Your task to perform on an android device: stop showing notifications on the lock screen Image 0: 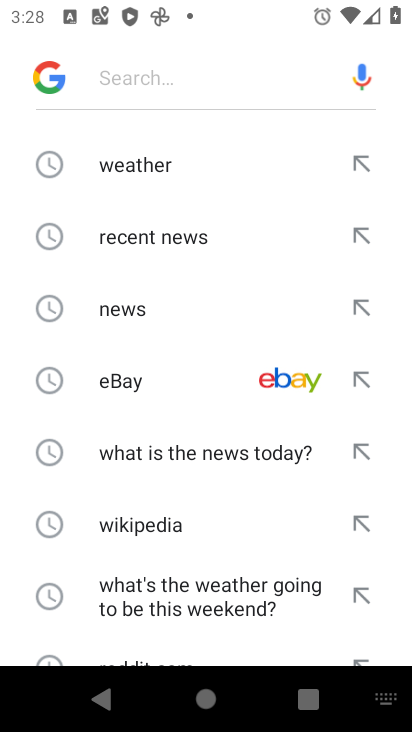
Step 0: press home button
Your task to perform on an android device: stop showing notifications on the lock screen Image 1: 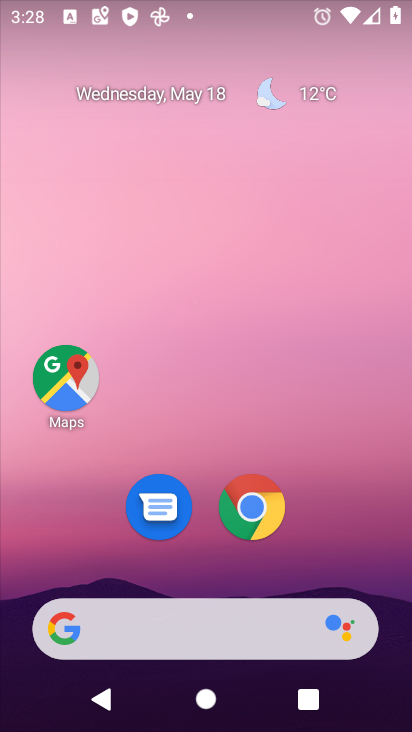
Step 1: drag from (388, 593) to (308, 107)
Your task to perform on an android device: stop showing notifications on the lock screen Image 2: 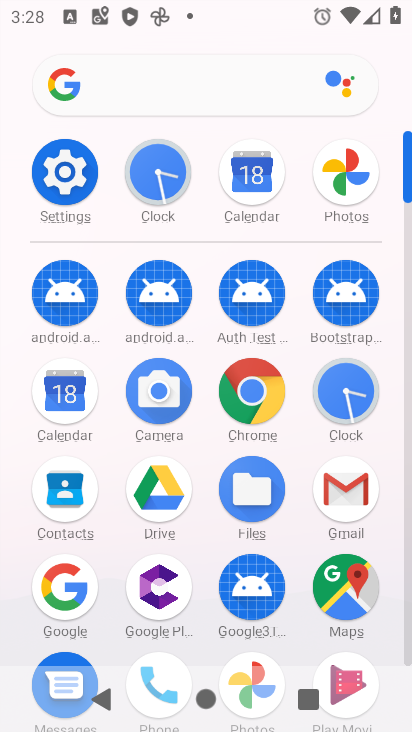
Step 2: click (405, 642)
Your task to perform on an android device: stop showing notifications on the lock screen Image 3: 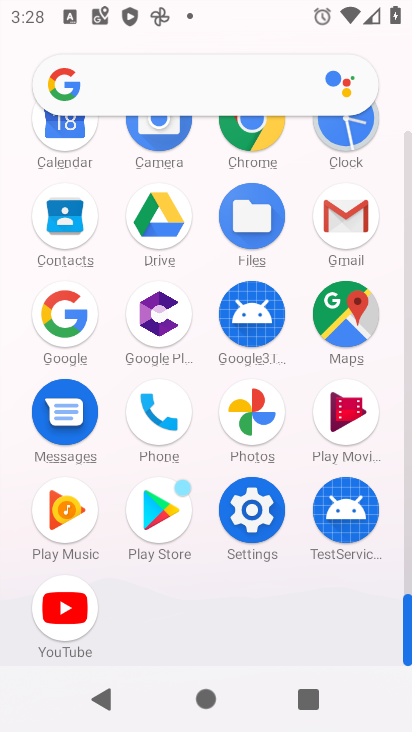
Step 3: click (253, 511)
Your task to perform on an android device: stop showing notifications on the lock screen Image 4: 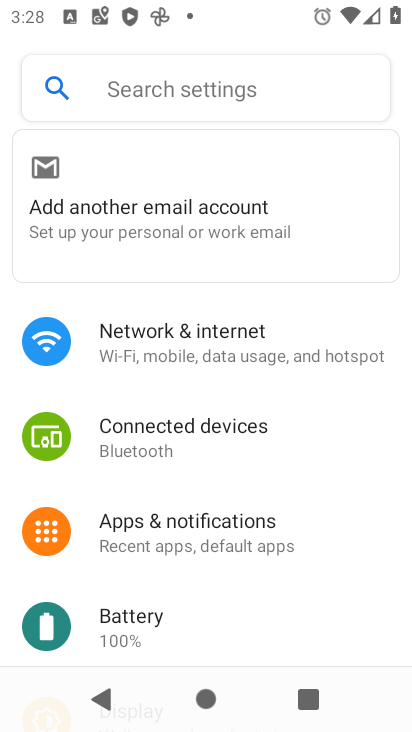
Step 4: click (183, 521)
Your task to perform on an android device: stop showing notifications on the lock screen Image 5: 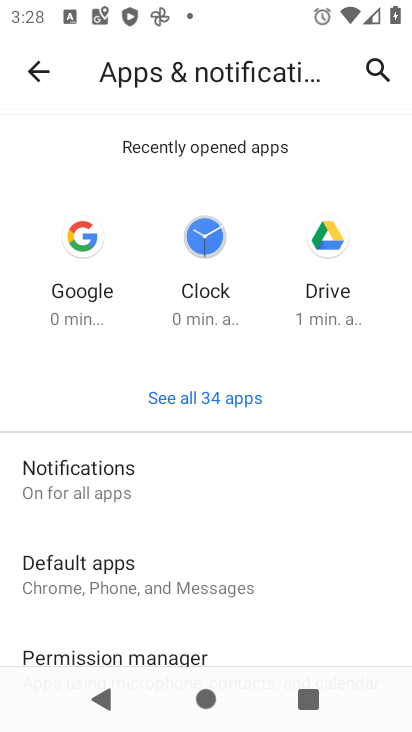
Step 5: click (64, 453)
Your task to perform on an android device: stop showing notifications on the lock screen Image 6: 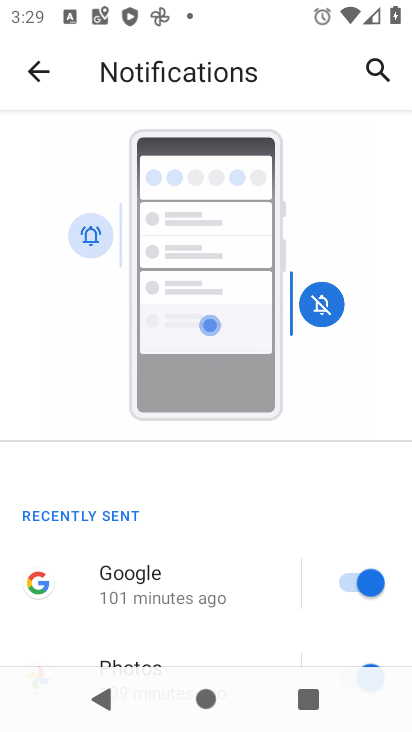
Step 6: drag from (292, 636) to (223, 77)
Your task to perform on an android device: stop showing notifications on the lock screen Image 7: 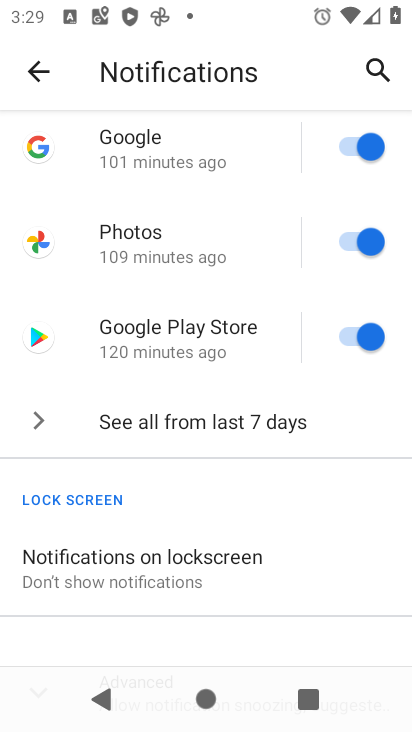
Step 7: drag from (282, 579) to (262, 309)
Your task to perform on an android device: stop showing notifications on the lock screen Image 8: 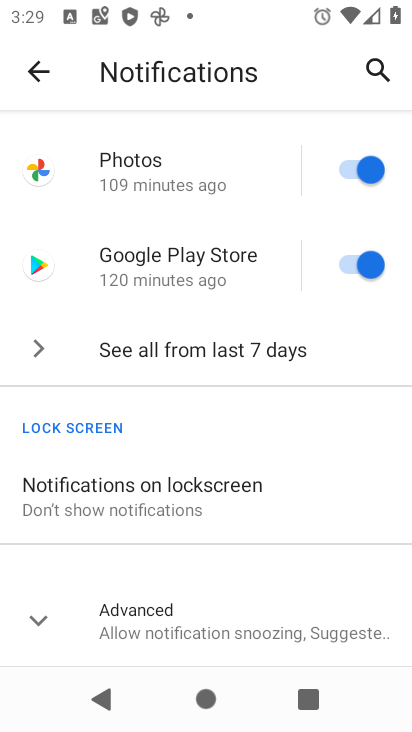
Step 8: click (157, 497)
Your task to perform on an android device: stop showing notifications on the lock screen Image 9: 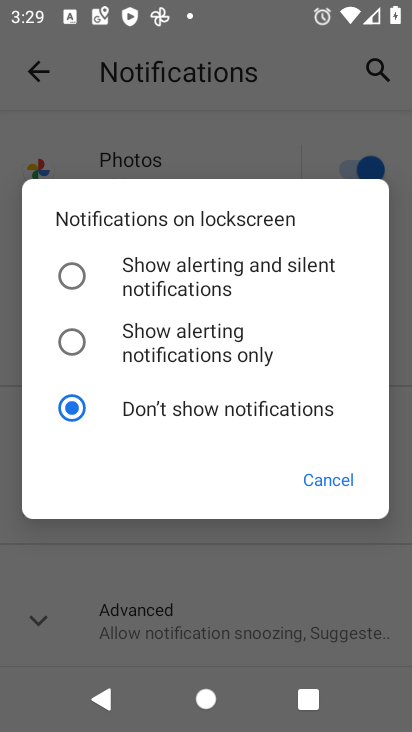
Step 9: task complete